Your task to perform on an android device: delete the emails in spam in the gmail app Image 0: 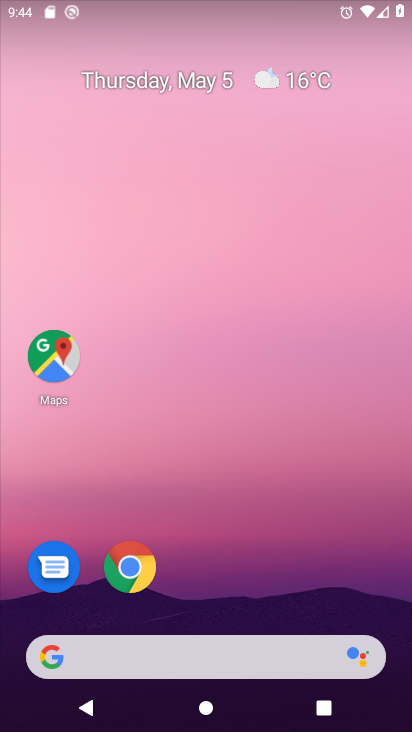
Step 0: drag from (318, 550) to (270, 13)
Your task to perform on an android device: delete the emails in spam in the gmail app Image 1: 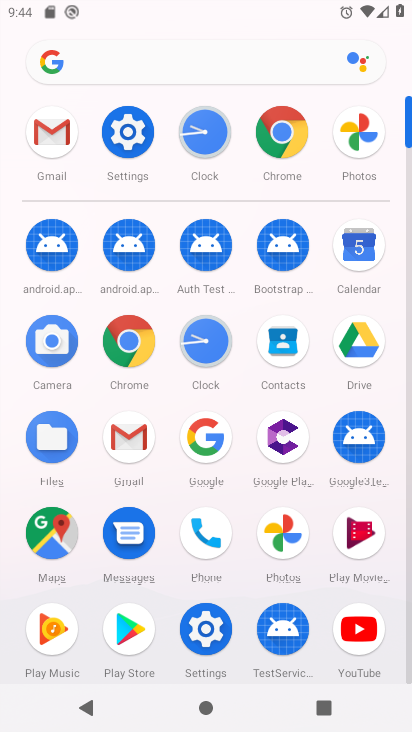
Step 1: click (50, 138)
Your task to perform on an android device: delete the emails in spam in the gmail app Image 2: 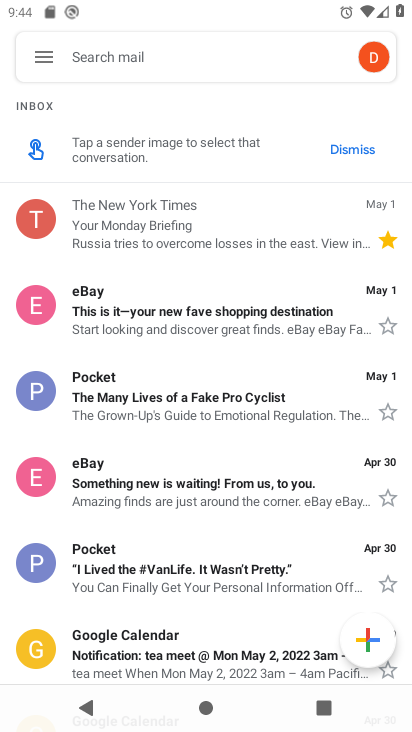
Step 2: click (39, 55)
Your task to perform on an android device: delete the emails in spam in the gmail app Image 3: 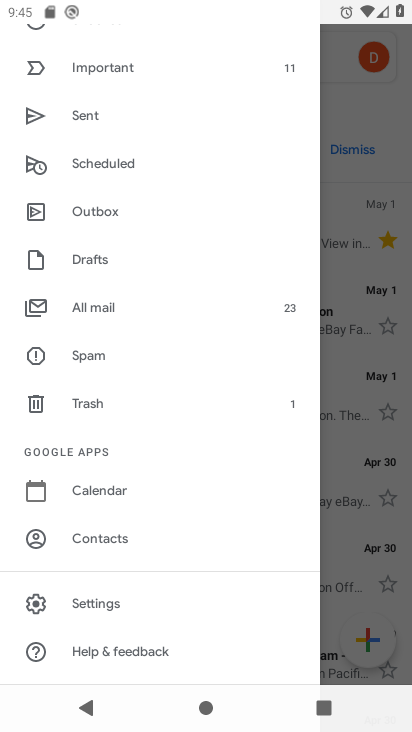
Step 3: click (101, 357)
Your task to perform on an android device: delete the emails in spam in the gmail app Image 4: 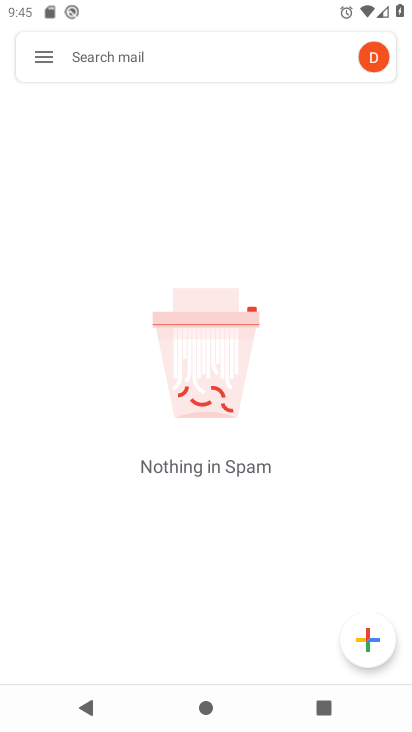
Step 4: task complete